Your task to perform on an android device: What's on my calendar today? Image 0: 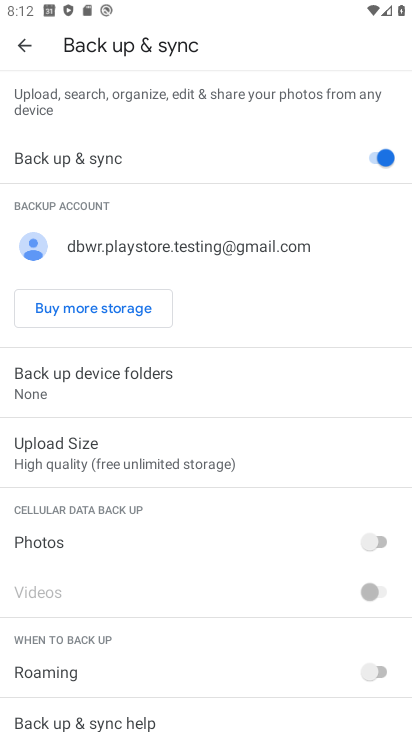
Step 0: press home button
Your task to perform on an android device: What's on my calendar today? Image 1: 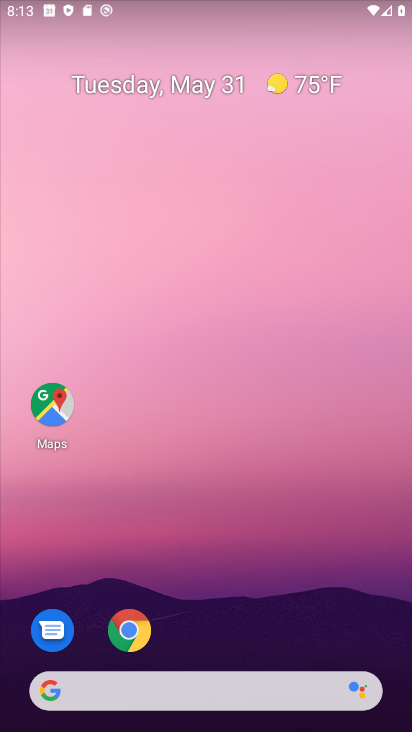
Step 1: click (277, 305)
Your task to perform on an android device: What's on my calendar today? Image 2: 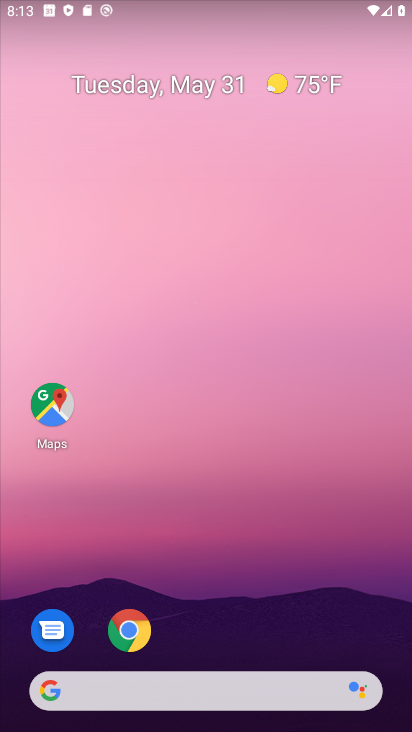
Step 2: drag from (199, 616) to (225, 193)
Your task to perform on an android device: What's on my calendar today? Image 3: 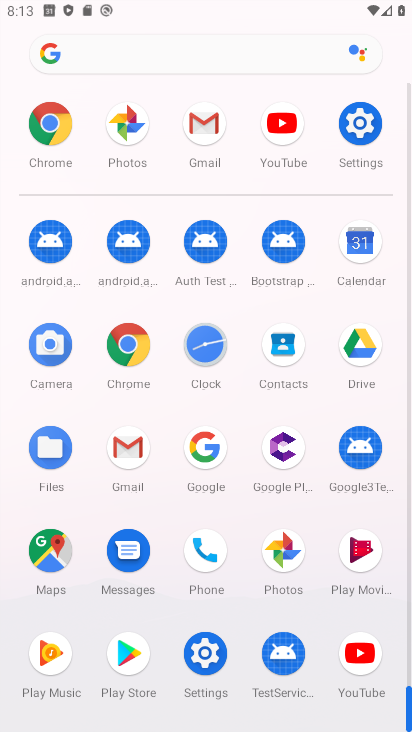
Step 3: click (375, 253)
Your task to perform on an android device: What's on my calendar today? Image 4: 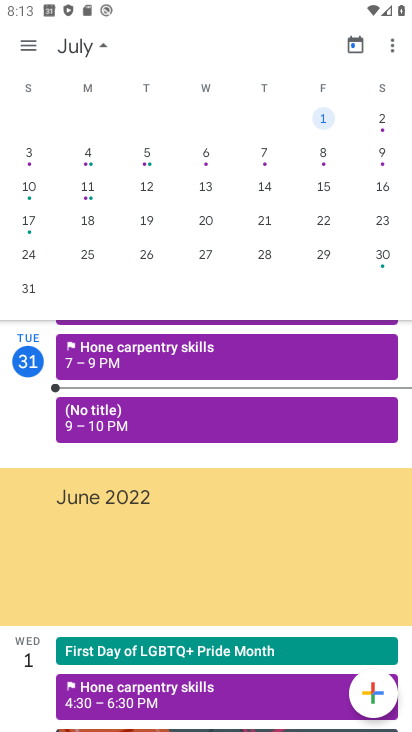
Step 4: drag from (68, 217) to (410, 234)
Your task to perform on an android device: What's on my calendar today? Image 5: 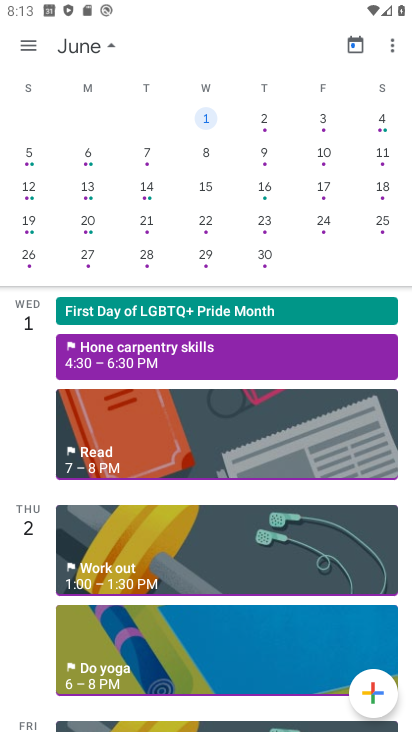
Step 5: drag from (181, 225) to (274, 242)
Your task to perform on an android device: What's on my calendar today? Image 6: 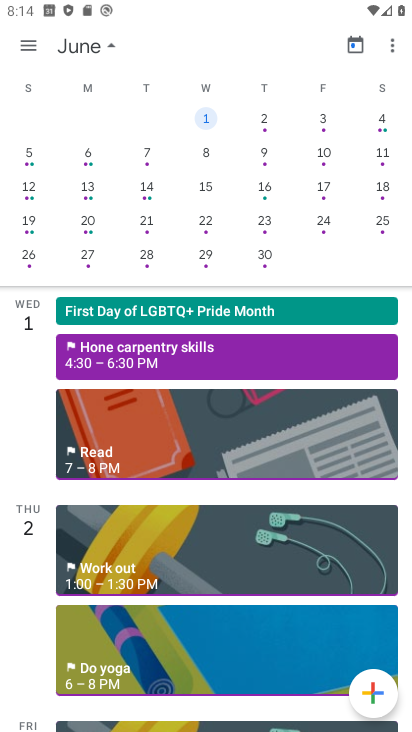
Step 6: drag from (36, 213) to (378, 262)
Your task to perform on an android device: What's on my calendar today? Image 7: 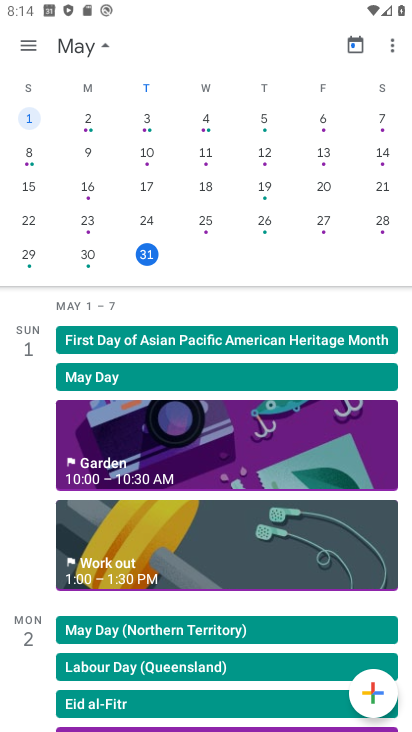
Step 7: drag from (159, 198) to (213, 192)
Your task to perform on an android device: What's on my calendar today? Image 8: 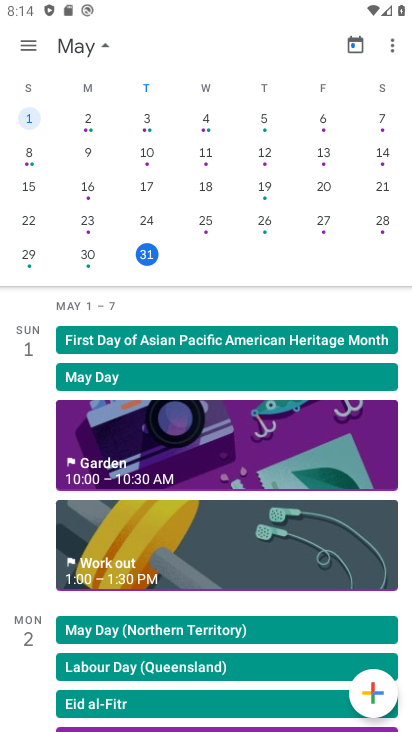
Step 8: click (146, 260)
Your task to perform on an android device: What's on my calendar today? Image 9: 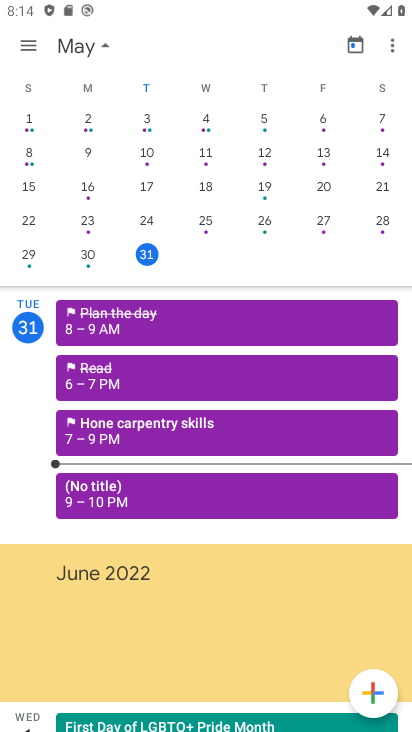
Step 9: task complete